Your task to perform on an android device: Show me productivity apps on the Play Store Image 0: 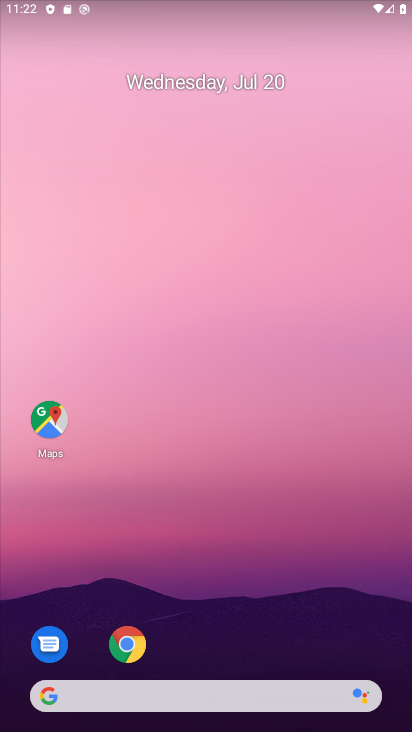
Step 0: drag from (243, 611) to (176, 171)
Your task to perform on an android device: Show me productivity apps on the Play Store Image 1: 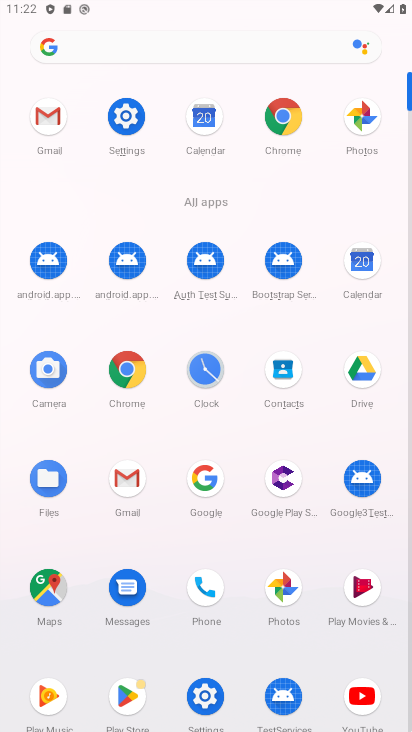
Step 1: drag from (146, 627) to (149, 389)
Your task to perform on an android device: Show me productivity apps on the Play Store Image 2: 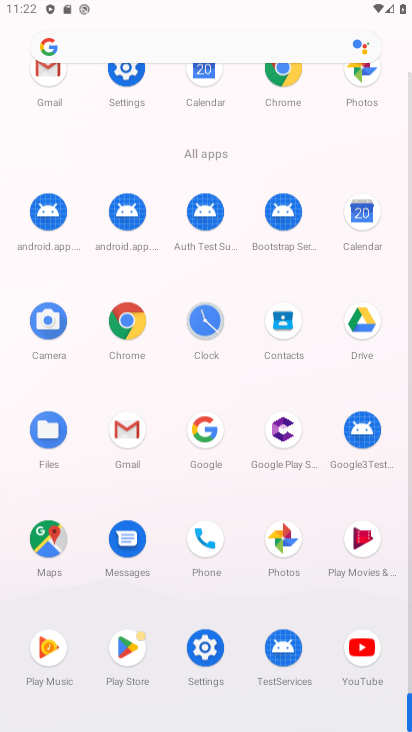
Step 2: drag from (160, 539) to (160, 423)
Your task to perform on an android device: Show me productivity apps on the Play Store Image 3: 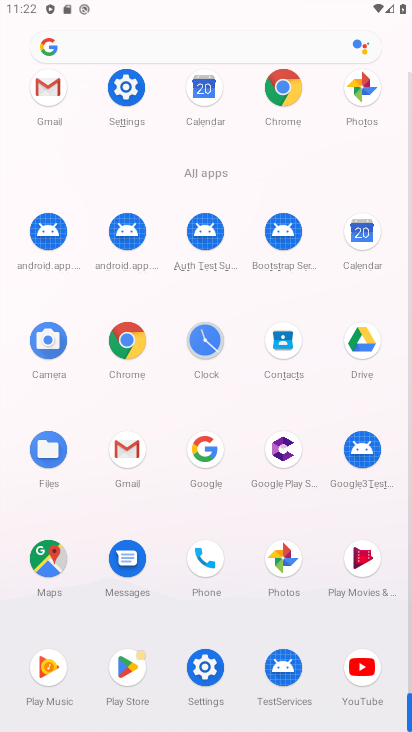
Step 3: click (135, 671)
Your task to perform on an android device: Show me productivity apps on the Play Store Image 4: 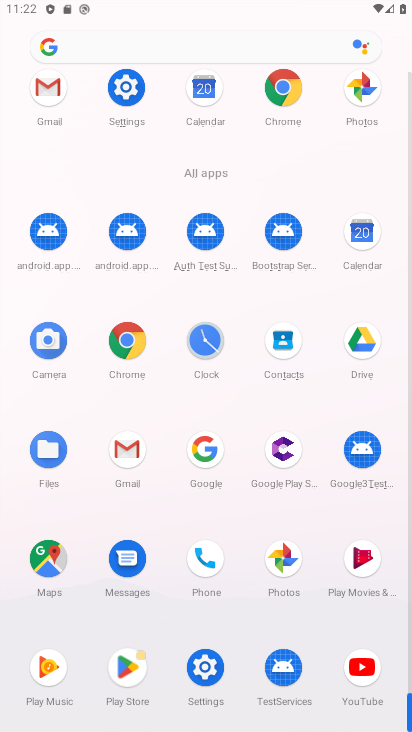
Step 4: click (134, 671)
Your task to perform on an android device: Show me productivity apps on the Play Store Image 5: 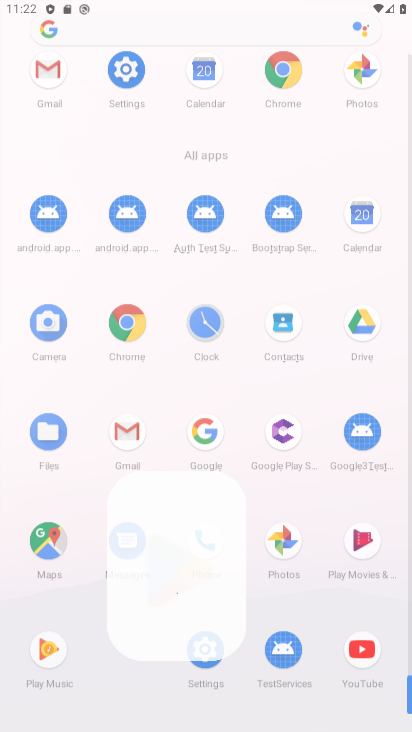
Step 5: click (133, 671)
Your task to perform on an android device: Show me productivity apps on the Play Store Image 6: 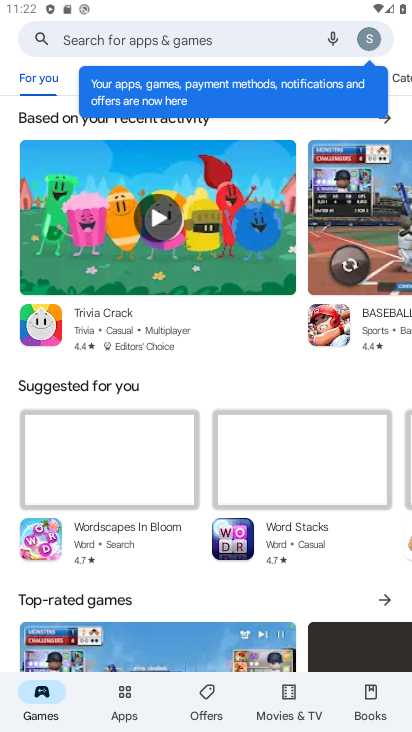
Step 6: drag from (252, 495) to (261, 99)
Your task to perform on an android device: Show me productivity apps on the Play Store Image 7: 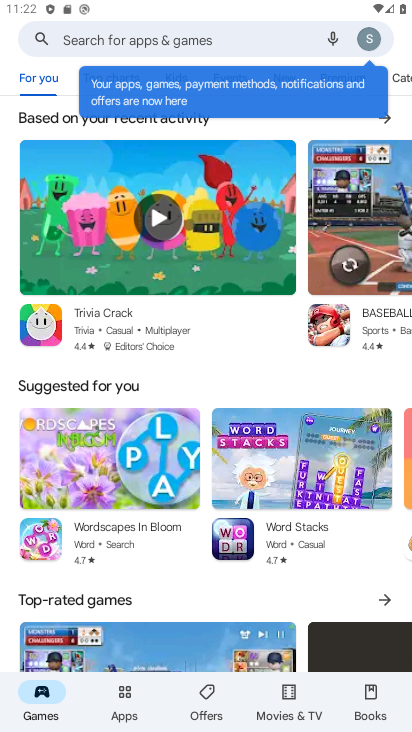
Step 7: drag from (252, 271) to (252, 149)
Your task to perform on an android device: Show me productivity apps on the Play Store Image 8: 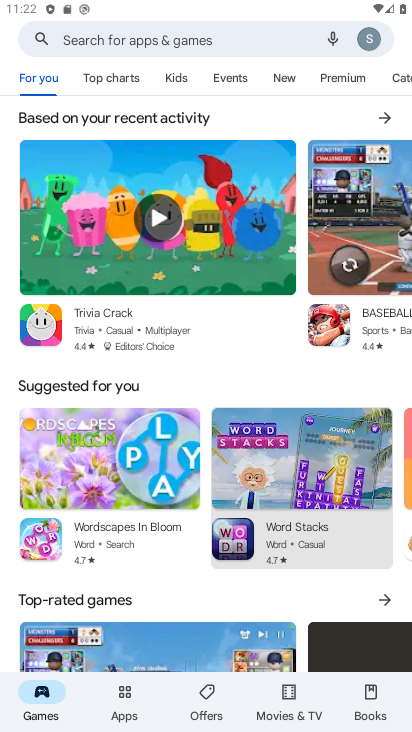
Step 8: drag from (246, 340) to (245, 224)
Your task to perform on an android device: Show me productivity apps on the Play Store Image 9: 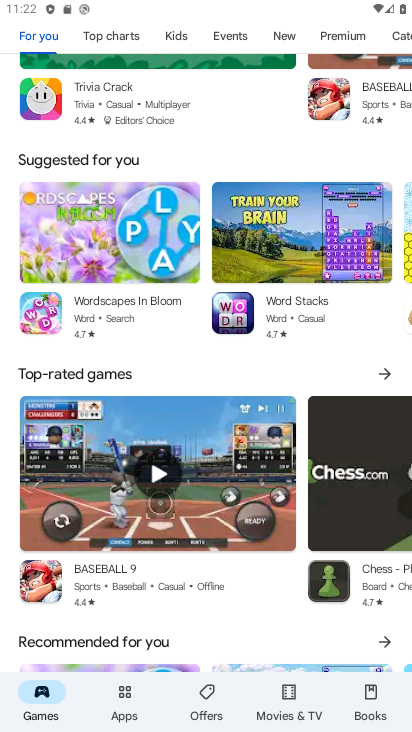
Step 9: drag from (196, 97) to (252, 505)
Your task to perform on an android device: Show me productivity apps on the Play Store Image 10: 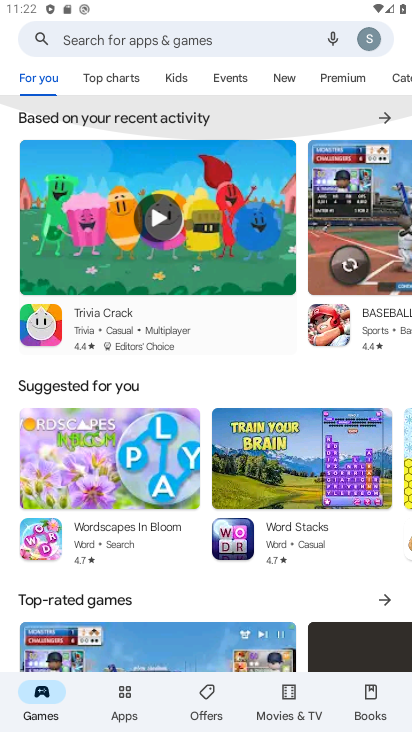
Step 10: drag from (166, 76) to (226, 334)
Your task to perform on an android device: Show me productivity apps on the Play Store Image 11: 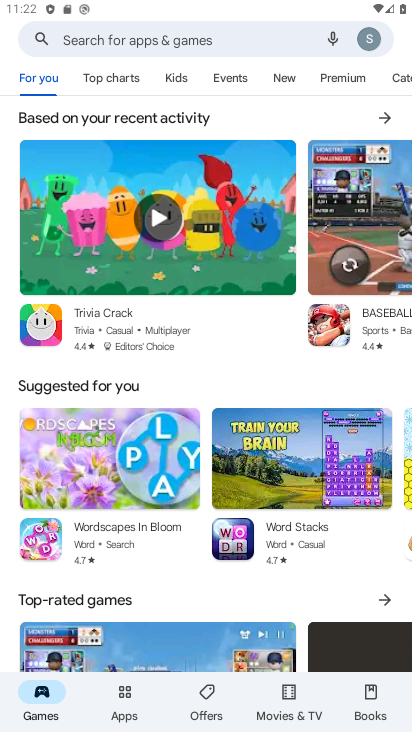
Step 11: drag from (142, 136) to (270, 531)
Your task to perform on an android device: Show me productivity apps on the Play Store Image 12: 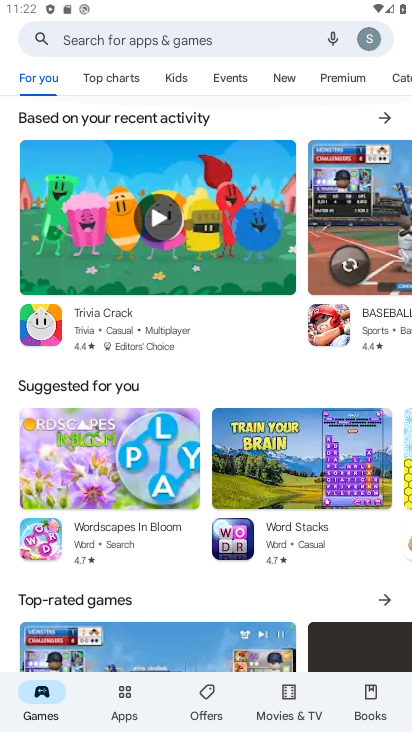
Step 12: click (223, 38)
Your task to perform on an android device: Show me productivity apps on the Play Store Image 13: 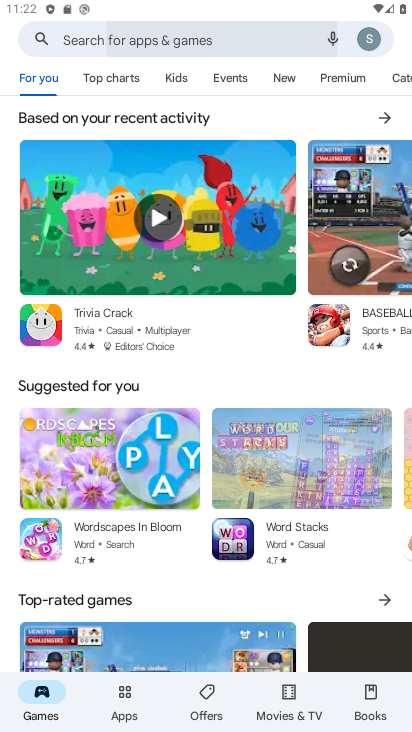
Step 13: click (222, 37)
Your task to perform on an android device: Show me productivity apps on the Play Store Image 14: 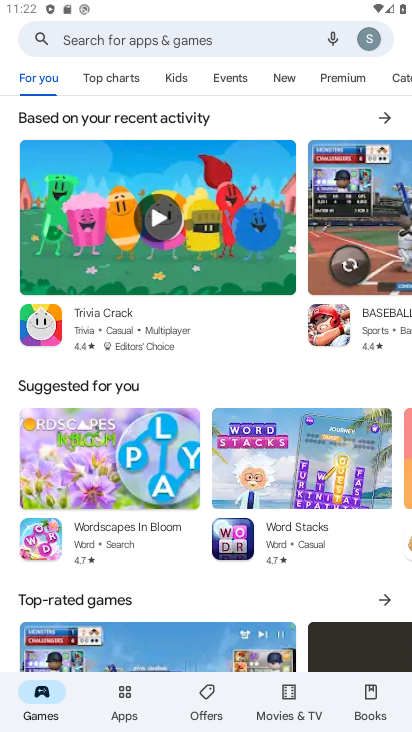
Step 14: click (217, 39)
Your task to perform on an android device: Show me productivity apps on the Play Store Image 15: 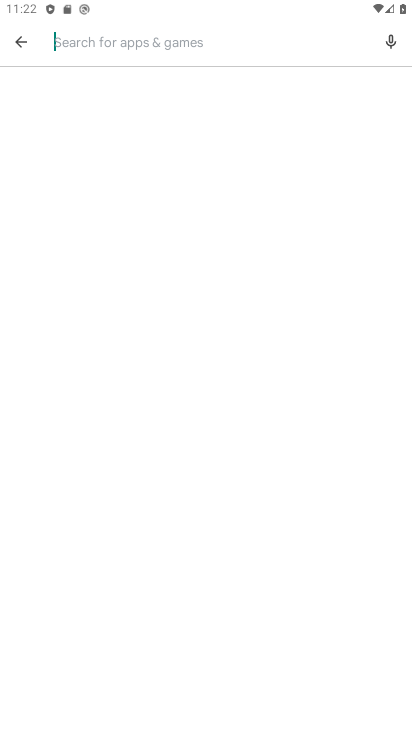
Step 15: click (217, 39)
Your task to perform on an android device: Show me productivity apps on the Play Store Image 16: 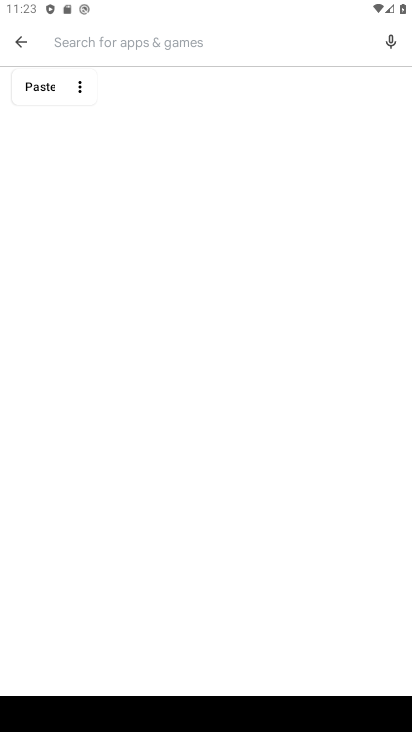
Step 16: type "productivity apps"
Your task to perform on an android device: Show me productivity apps on the Play Store Image 17: 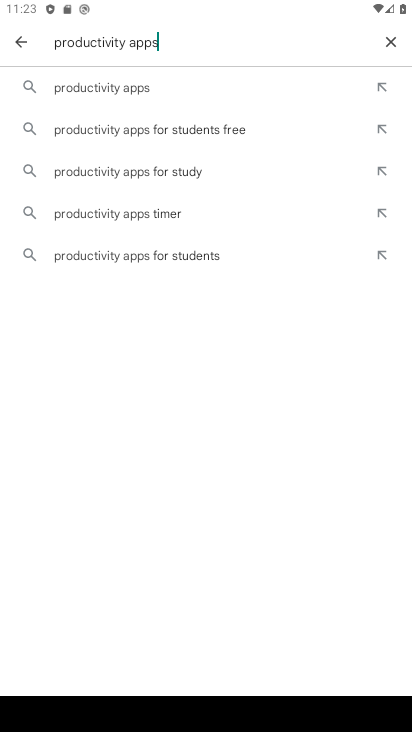
Step 17: click (99, 90)
Your task to perform on an android device: Show me productivity apps on the Play Store Image 18: 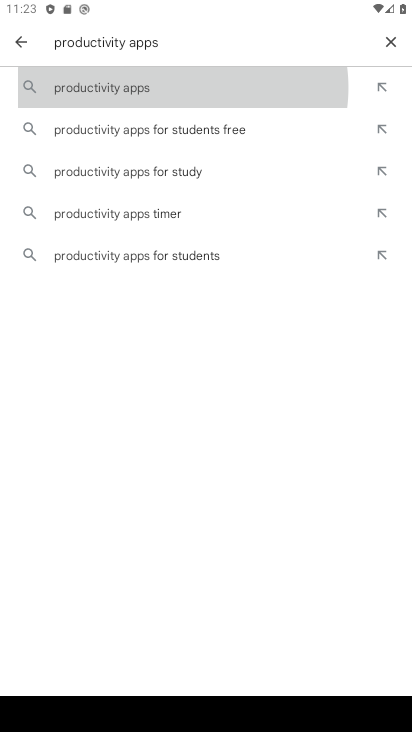
Step 18: click (99, 90)
Your task to perform on an android device: Show me productivity apps on the Play Store Image 19: 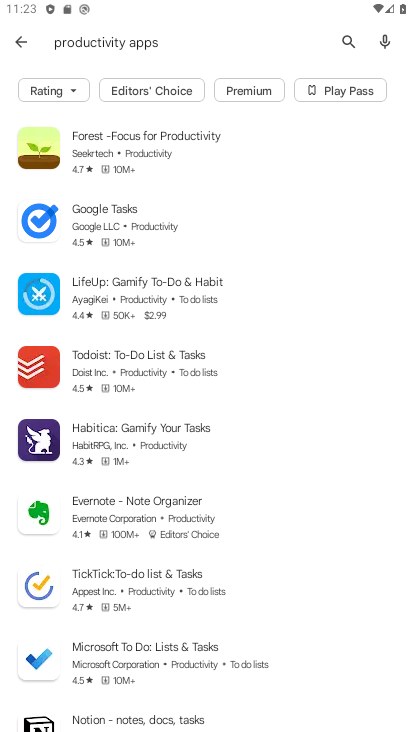
Step 19: task complete